Your task to perform on an android device: Go to location settings Image 0: 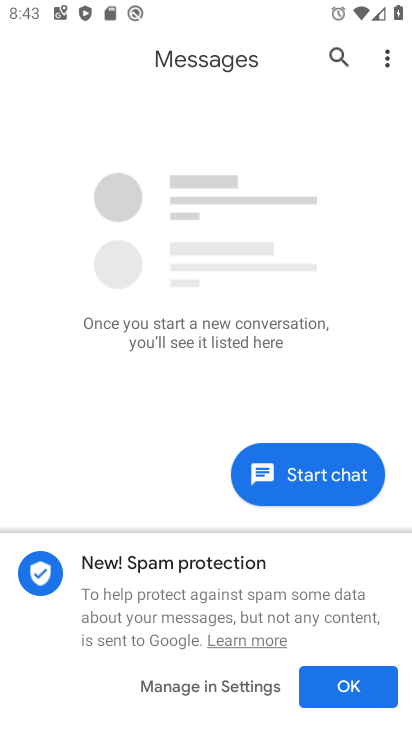
Step 0: press home button
Your task to perform on an android device: Go to location settings Image 1: 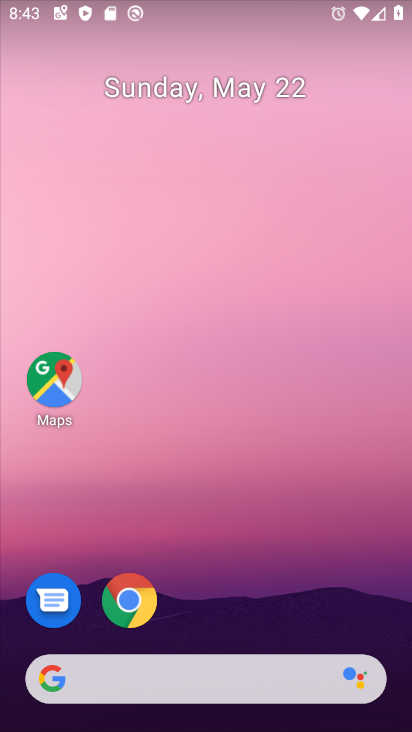
Step 1: drag from (278, 625) to (286, 293)
Your task to perform on an android device: Go to location settings Image 2: 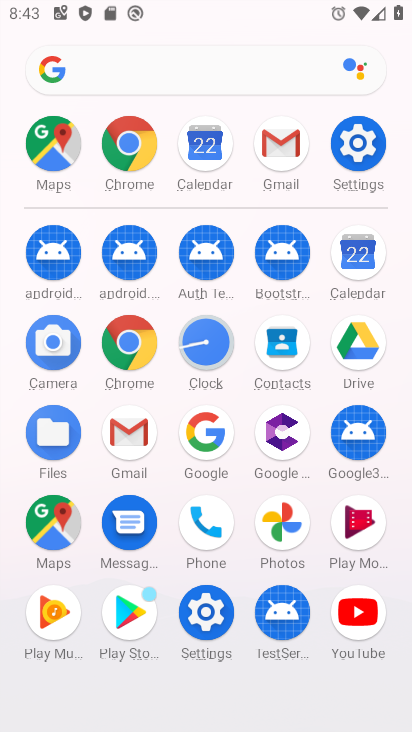
Step 2: click (367, 160)
Your task to perform on an android device: Go to location settings Image 3: 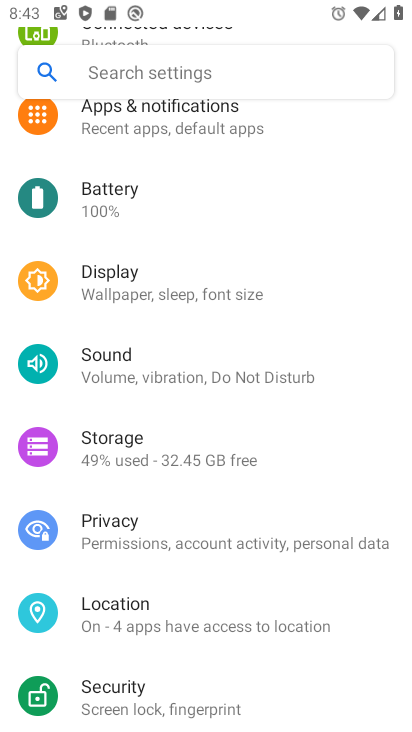
Step 3: click (188, 610)
Your task to perform on an android device: Go to location settings Image 4: 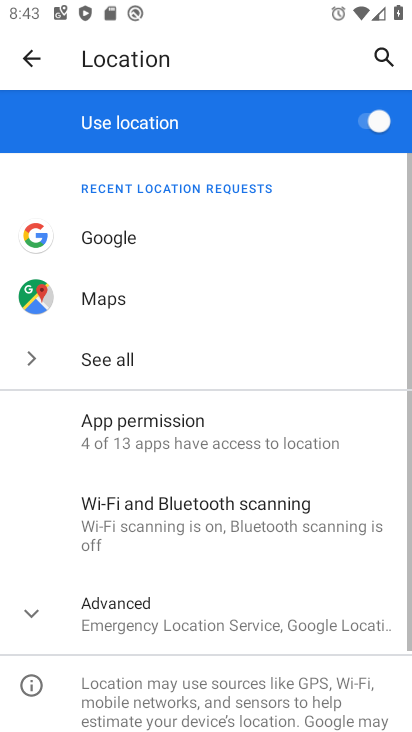
Step 4: click (188, 610)
Your task to perform on an android device: Go to location settings Image 5: 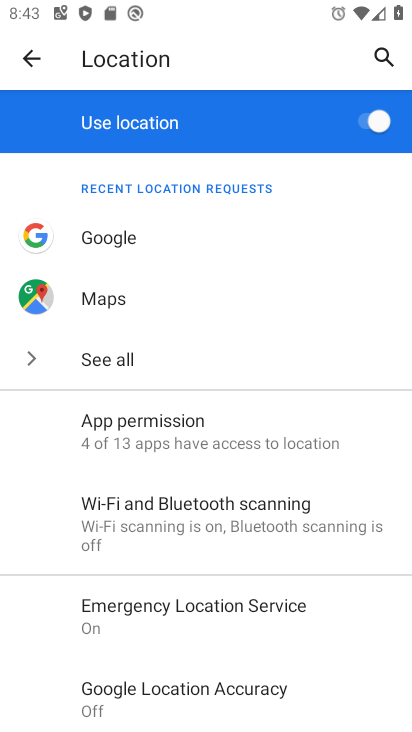
Step 5: task complete